Your task to perform on an android device: change the clock display to show seconds Image 0: 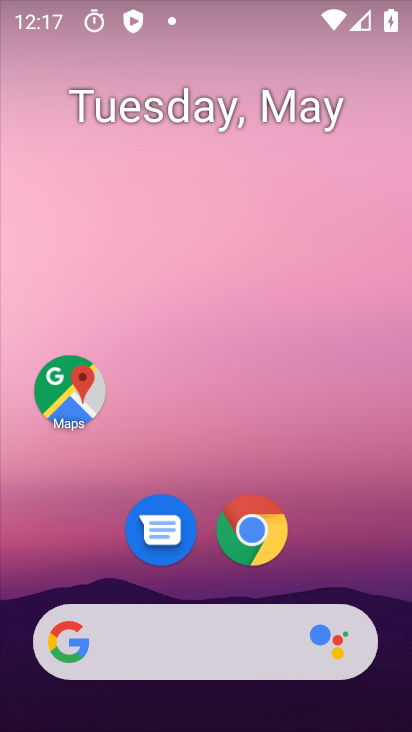
Step 0: drag from (358, 552) to (257, 23)
Your task to perform on an android device: change the clock display to show seconds Image 1: 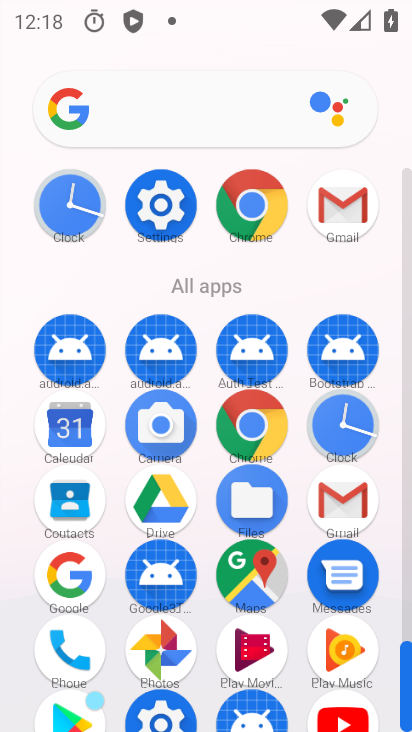
Step 1: click (345, 419)
Your task to perform on an android device: change the clock display to show seconds Image 2: 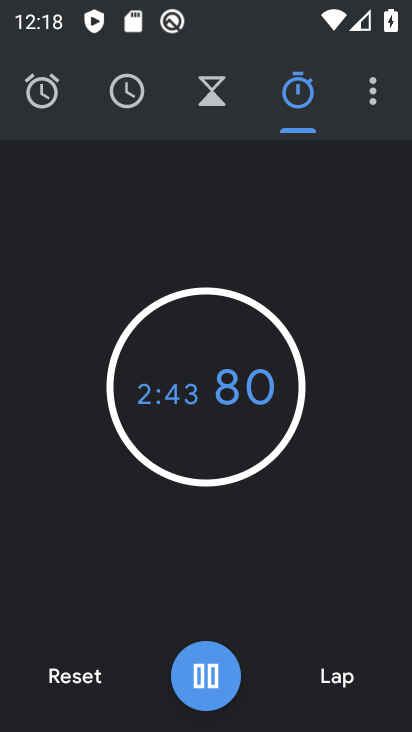
Step 2: drag from (370, 91) to (317, 165)
Your task to perform on an android device: change the clock display to show seconds Image 3: 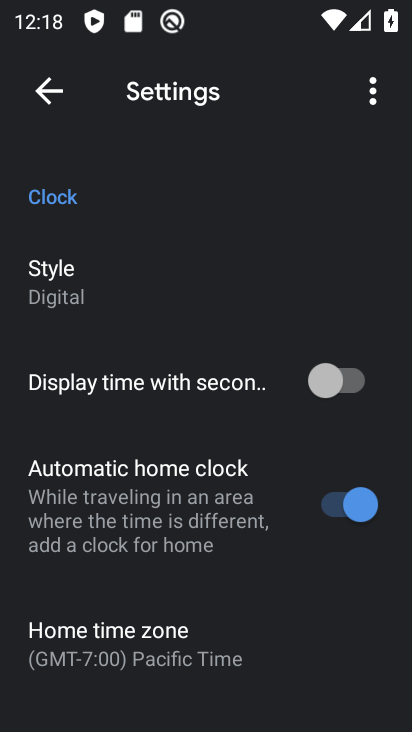
Step 3: click (344, 386)
Your task to perform on an android device: change the clock display to show seconds Image 4: 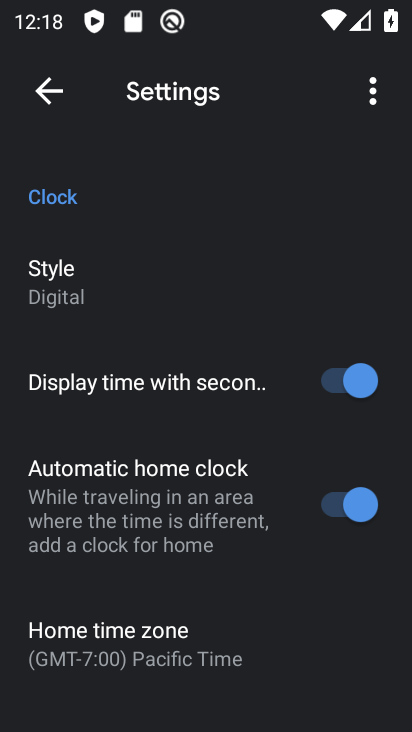
Step 4: task complete